Your task to perform on an android device: Open display settings Image 0: 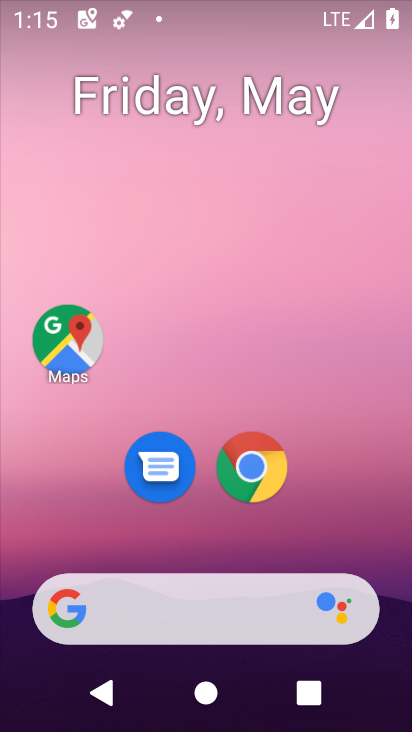
Step 0: drag from (328, 531) to (363, 48)
Your task to perform on an android device: Open display settings Image 1: 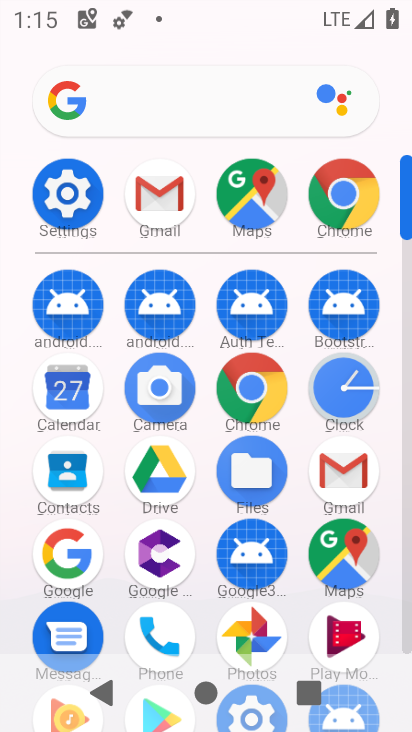
Step 1: click (84, 190)
Your task to perform on an android device: Open display settings Image 2: 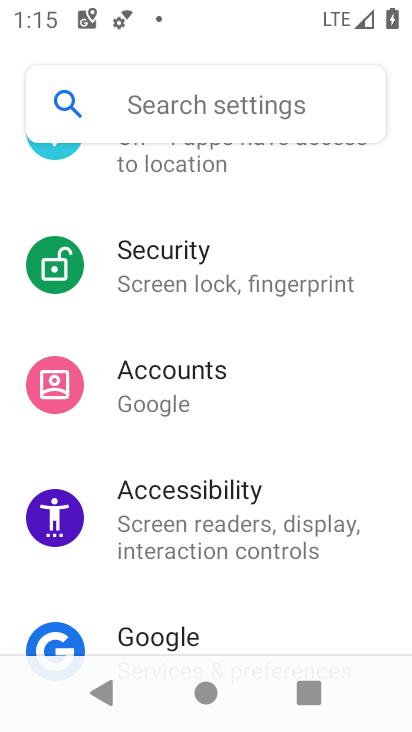
Step 2: drag from (247, 294) to (252, 593)
Your task to perform on an android device: Open display settings Image 3: 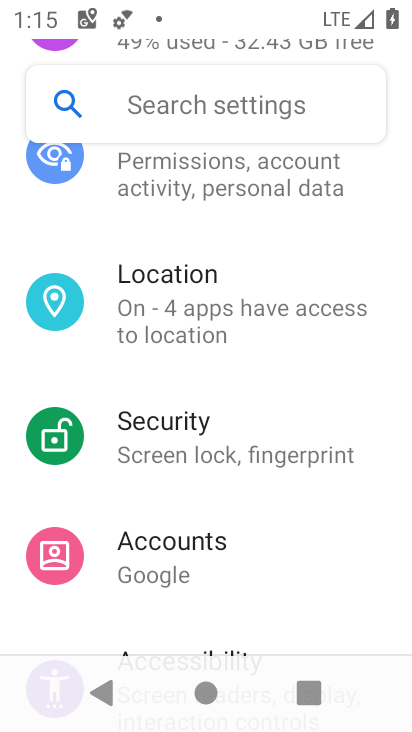
Step 3: drag from (222, 261) to (230, 646)
Your task to perform on an android device: Open display settings Image 4: 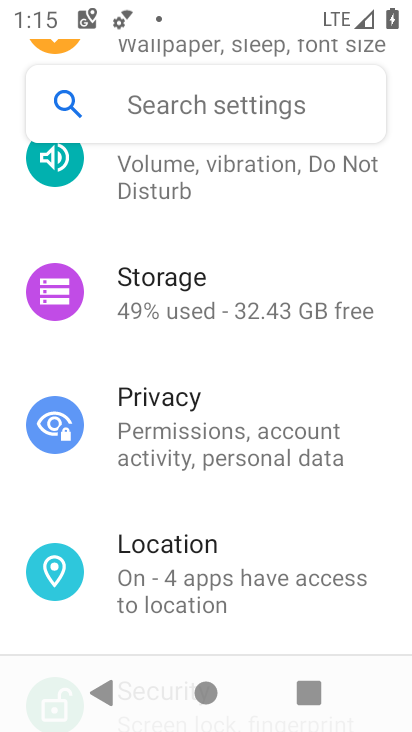
Step 4: drag from (268, 213) to (266, 590)
Your task to perform on an android device: Open display settings Image 5: 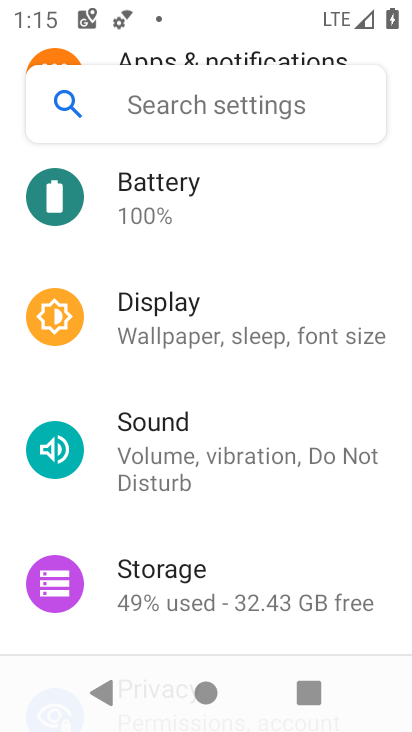
Step 5: click (161, 320)
Your task to perform on an android device: Open display settings Image 6: 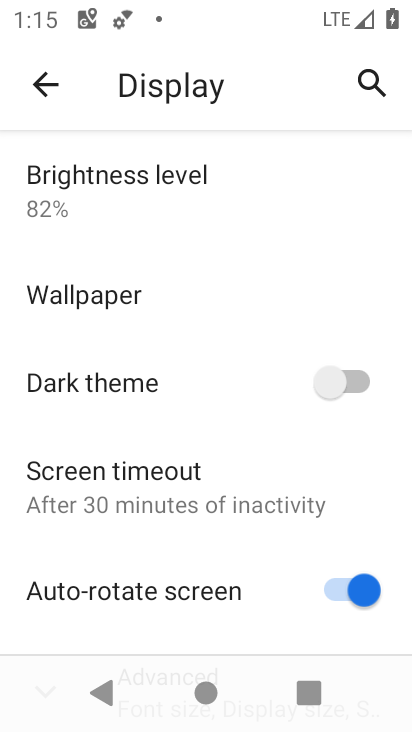
Step 6: task complete